Your task to perform on an android device: Is it going to rain this weekend? Image 0: 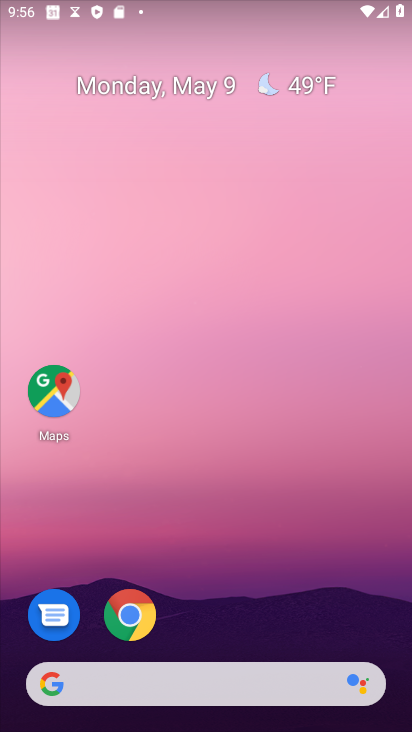
Step 0: drag from (308, 577) to (304, 29)
Your task to perform on an android device: Is it going to rain this weekend? Image 1: 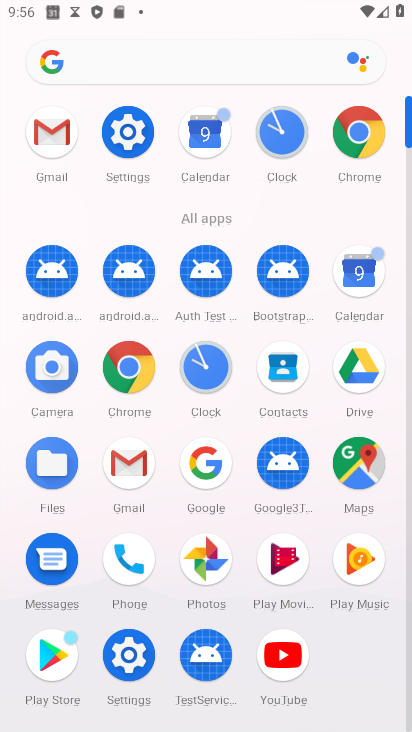
Step 1: click (217, 474)
Your task to perform on an android device: Is it going to rain this weekend? Image 2: 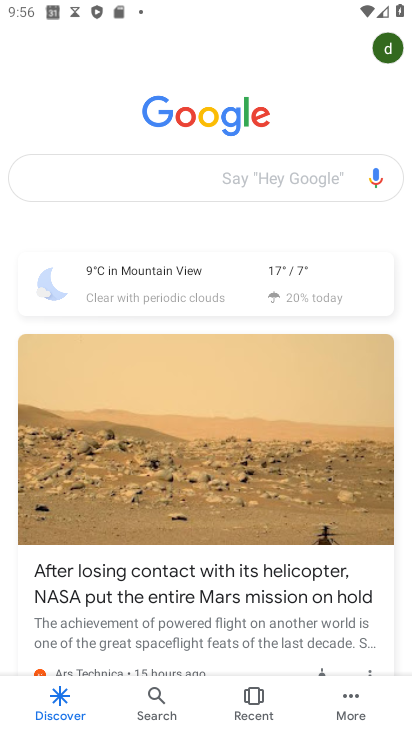
Step 2: click (248, 175)
Your task to perform on an android device: Is it going to rain this weekend? Image 3: 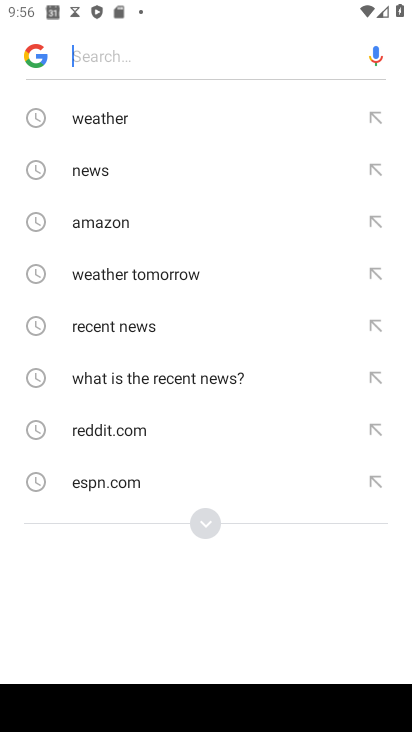
Step 3: type "is it going to rain this weekend?"
Your task to perform on an android device: Is it going to rain this weekend? Image 4: 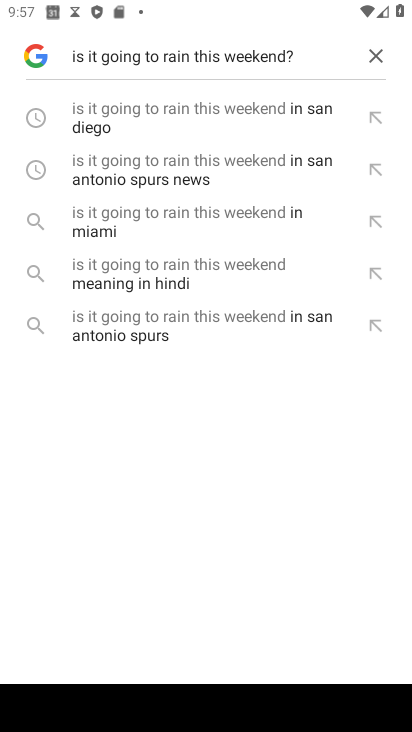
Step 4: click (318, 59)
Your task to perform on an android device: Is it going to rain this weekend? Image 5: 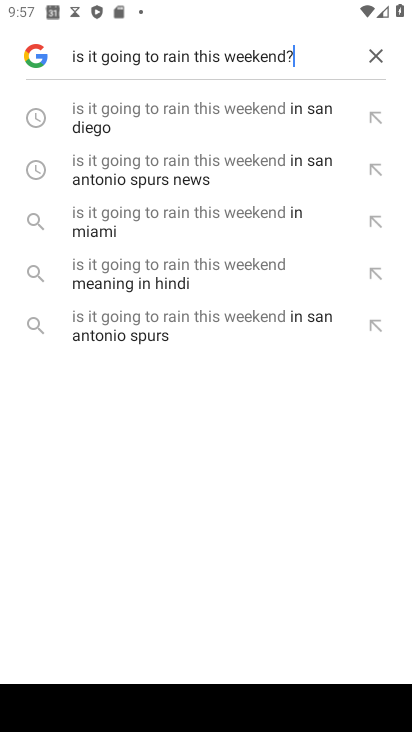
Step 5: click (378, 51)
Your task to perform on an android device: Is it going to rain this weekend? Image 6: 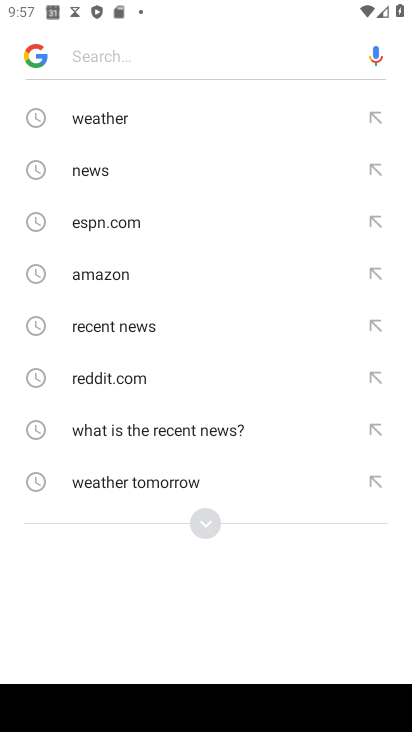
Step 6: type "Is it going to rain this weekend"
Your task to perform on an android device: Is it going to rain this weekend? Image 7: 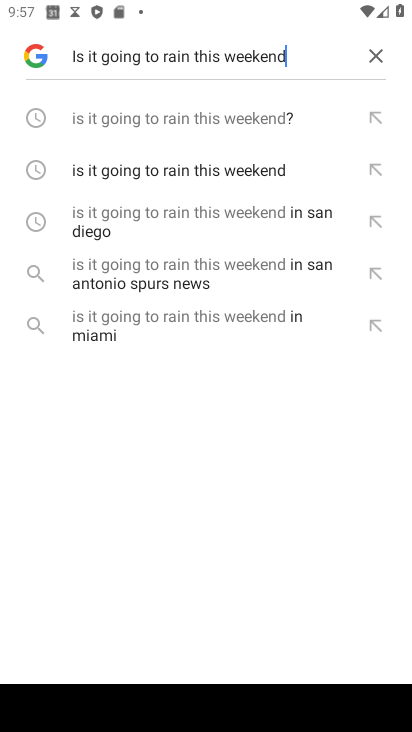
Step 7: click (181, 120)
Your task to perform on an android device: Is it going to rain this weekend? Image 8: 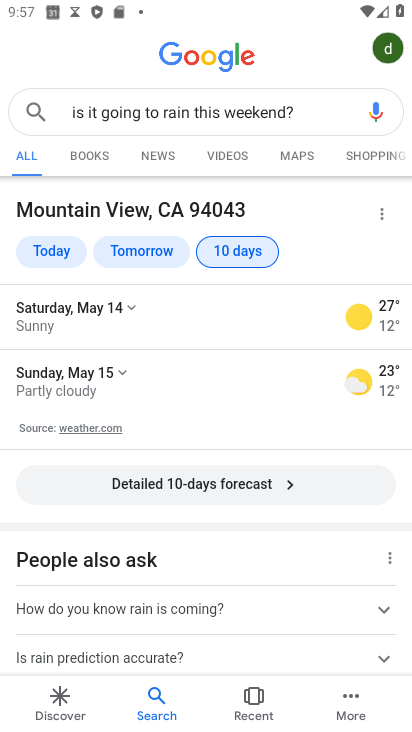
Step 8: task complete